Your task to perform on an android device: check battery use Image 0: 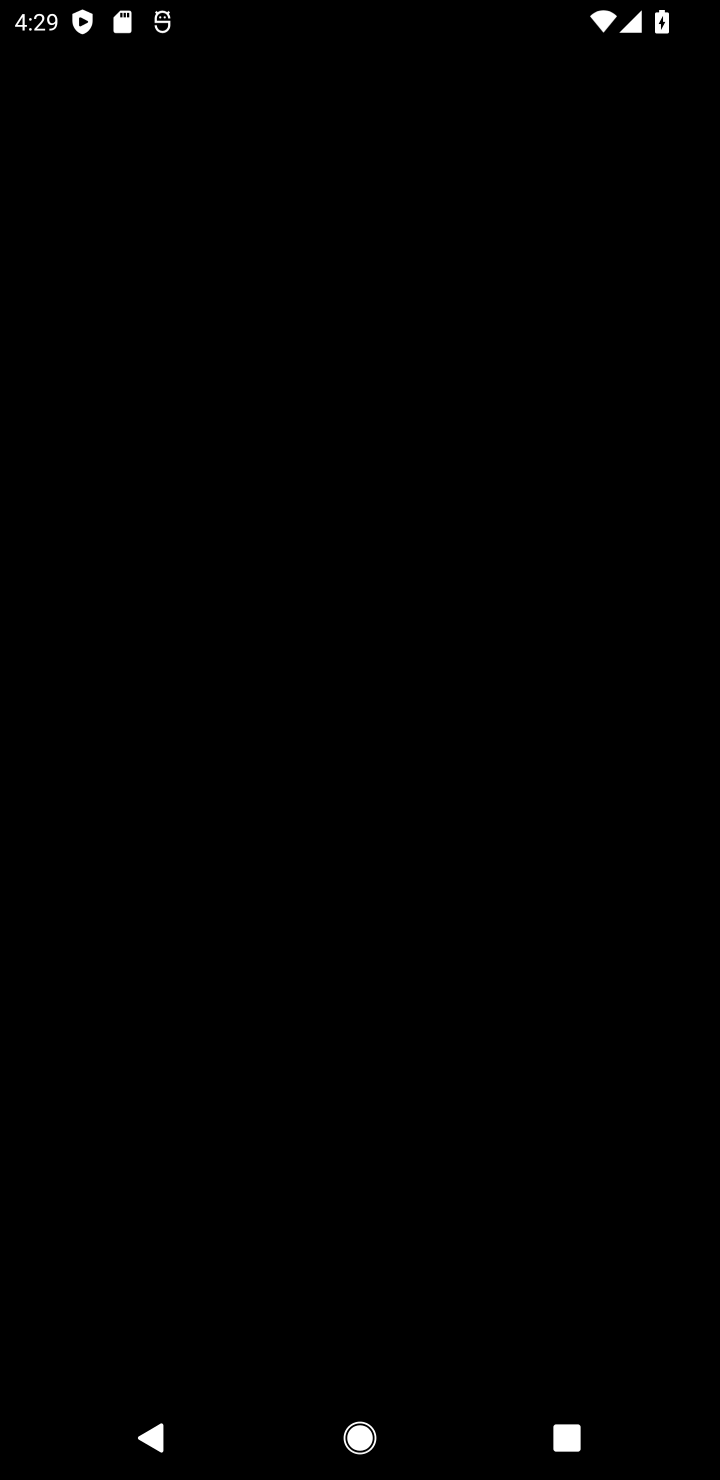
Step 0: press home button
Your task to perform on an android device: check battery use Image 1: 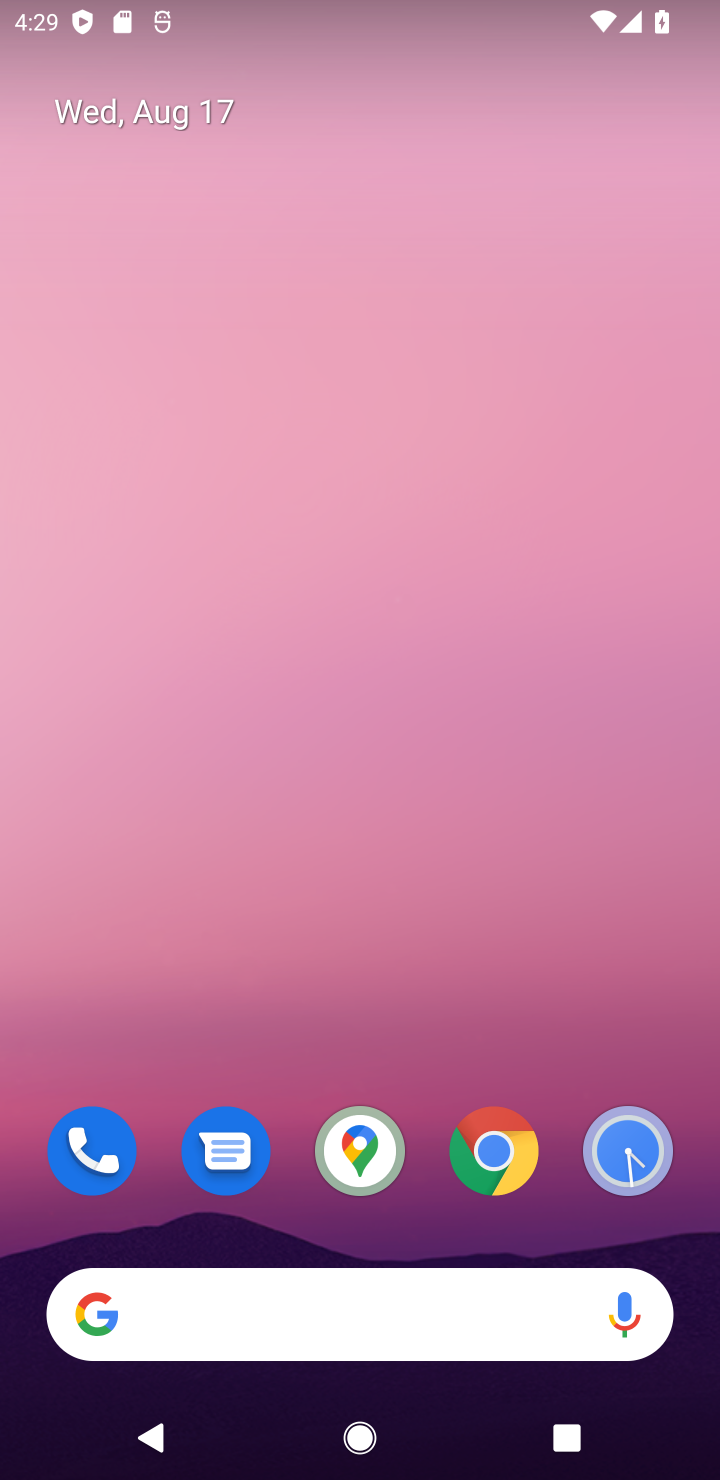
Step 1: drag from (429, 1192) to (325, 0)
Your task to perform on an android device: check battery use Image 2: 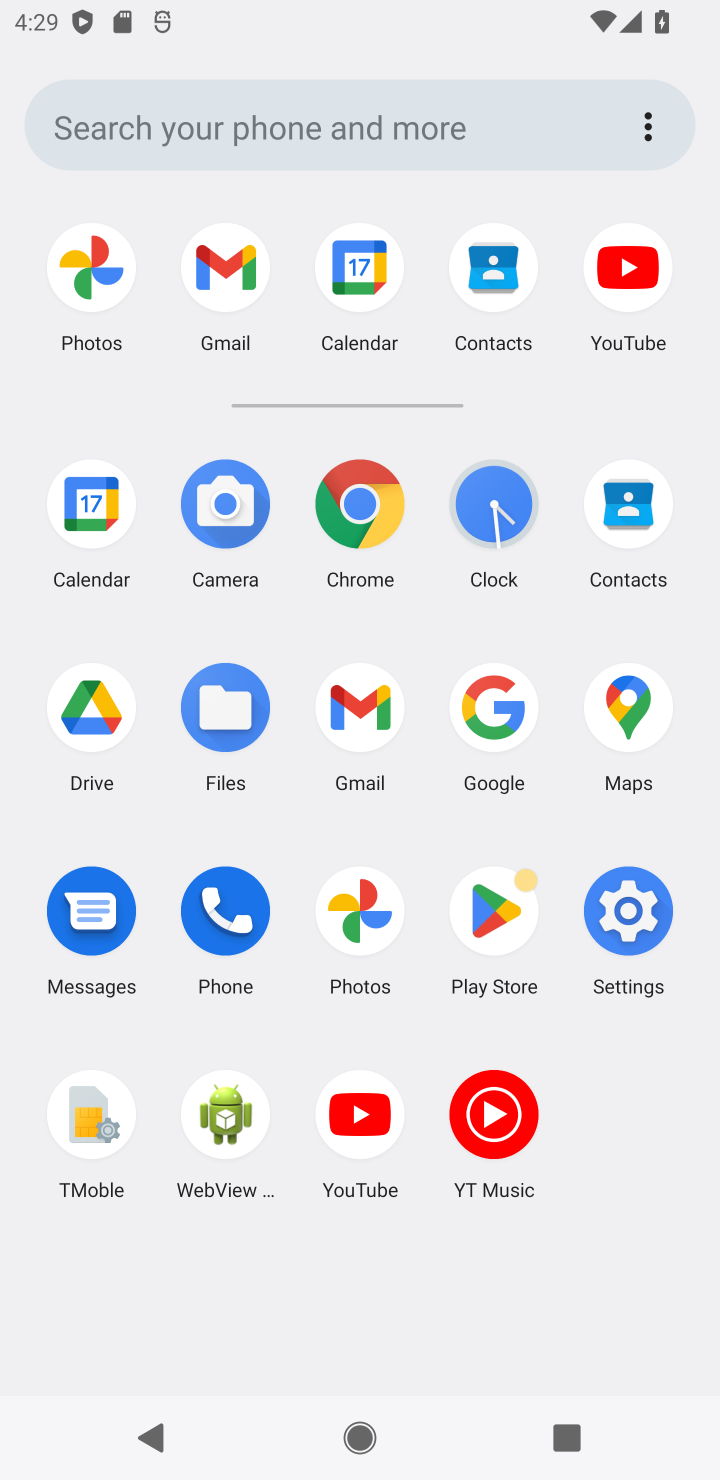
Step 2: click (645, 959)
Your task to perform on an android device: check battery use Image 3: 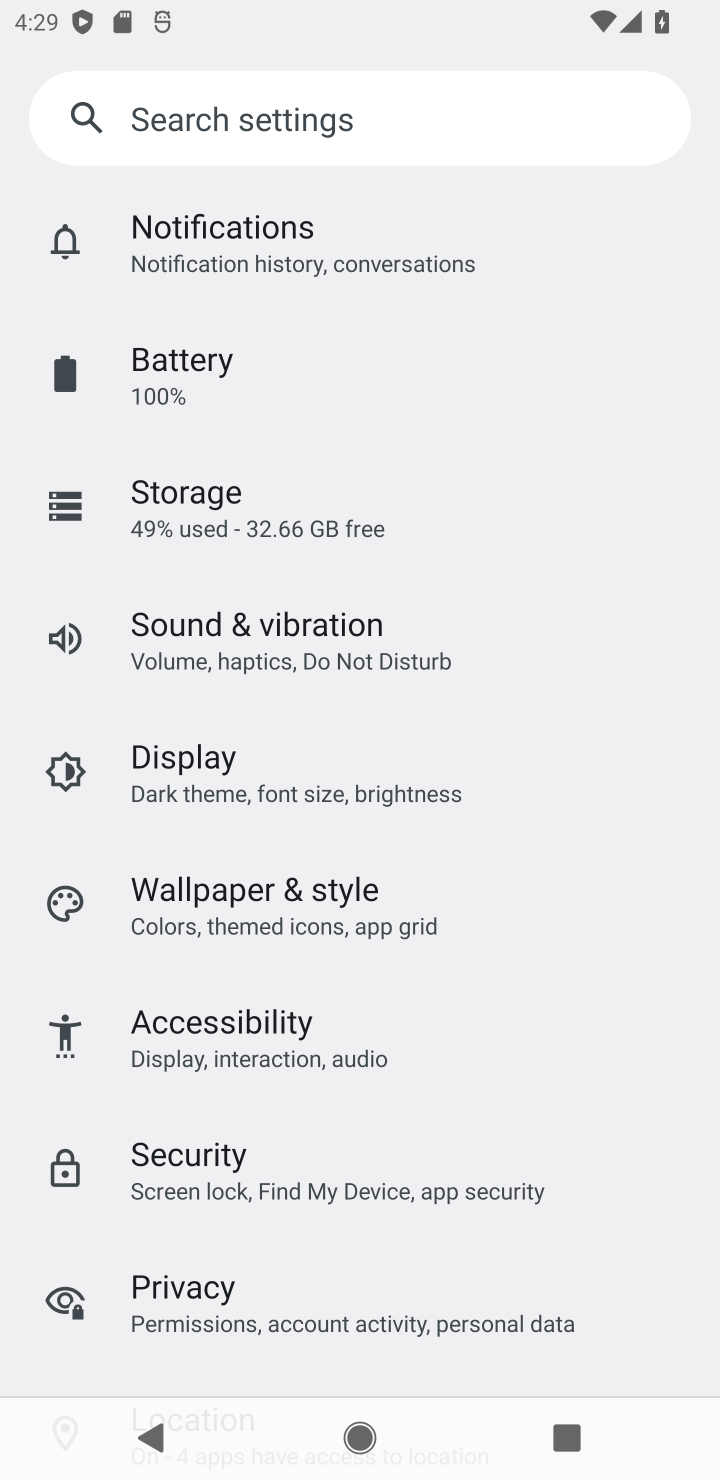
Step 3: click (283, 364)
Your task to perform on an android device: check battery use Image 4: 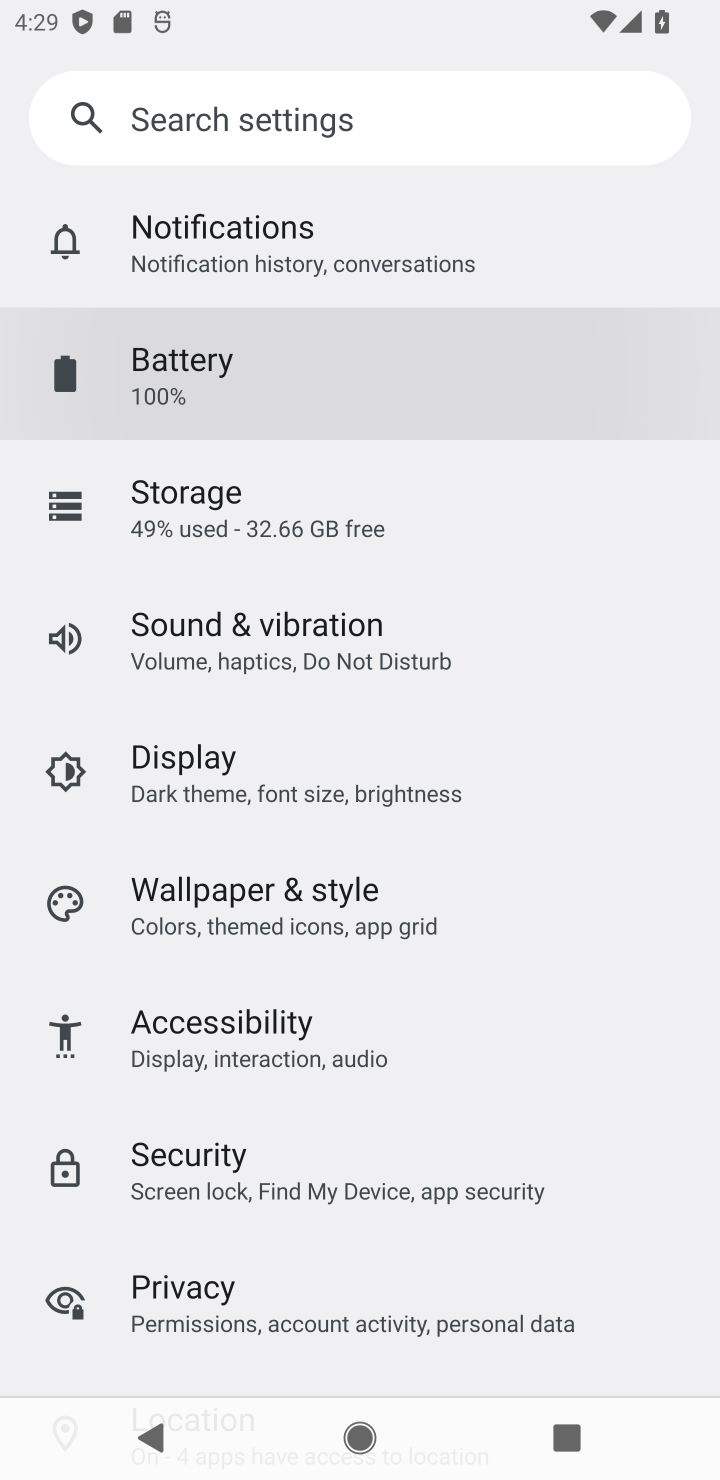
Step 4: task complete